Your task to perform on an android device: Open accessibility settings Image 0: 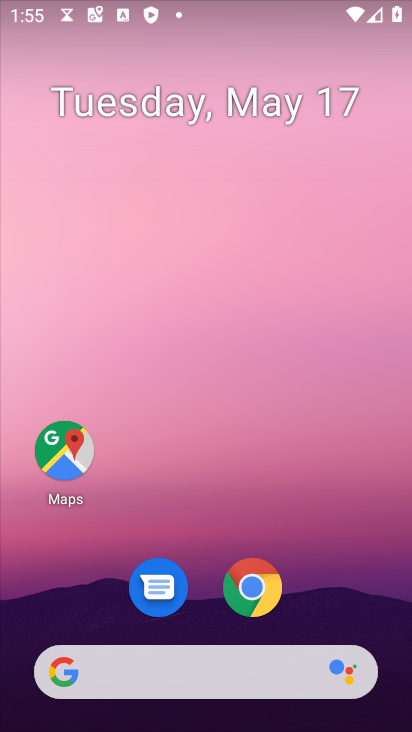
Step 0: drag from (223, 624) to (242, 190)
Your task to perform on an android device: Open accessibility settings Image 1: 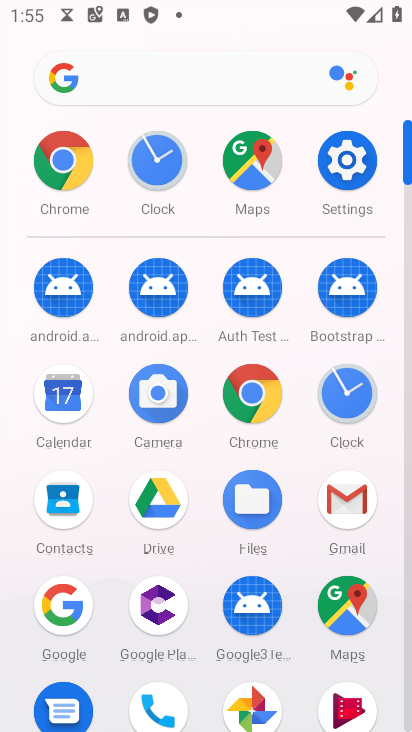
Step 1: click (352, 176)
Your task to perform on an android device: Open accessibility settings Image 2: 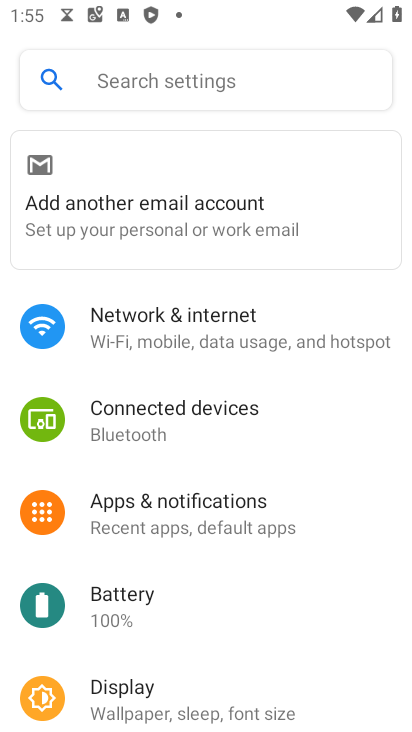
Step 2: drag from (250, 395) to (296, 74)
Your task to perform on an android device: Open accessibility settings Image 3: 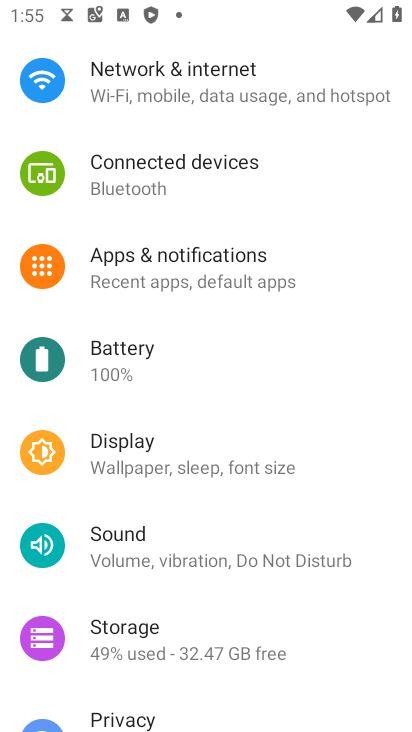
Step 3: drag from (215, 598) to (371, 36)
Your task to perform on an android device: Open accessibility settings Image 4: 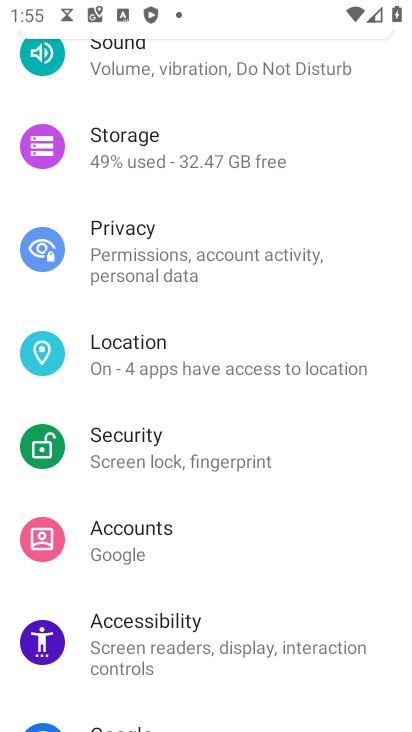
Step 4: click (176, 637)
Your task to perform on an android device: Open accessibility settings Image 5: 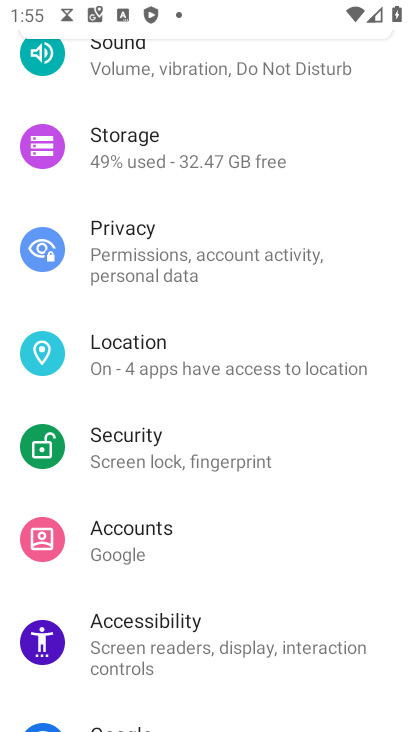
Step 5: click (176, 637)
Your task to perform on an android device: Open accessibility settings Image 6: 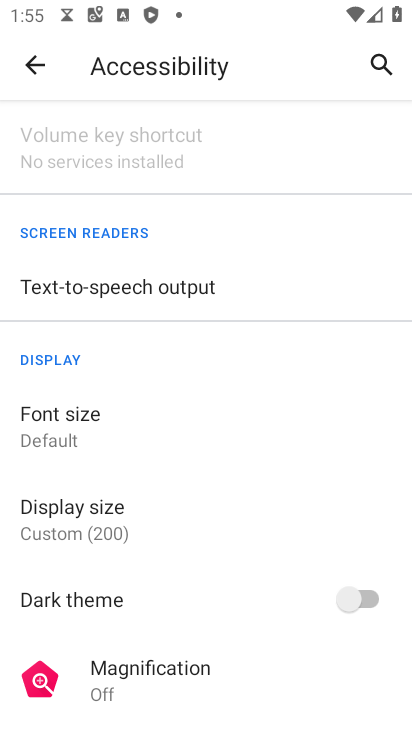
Step 6: task complete